Your task to perform on an android device: Open Google Chrome Image 0: 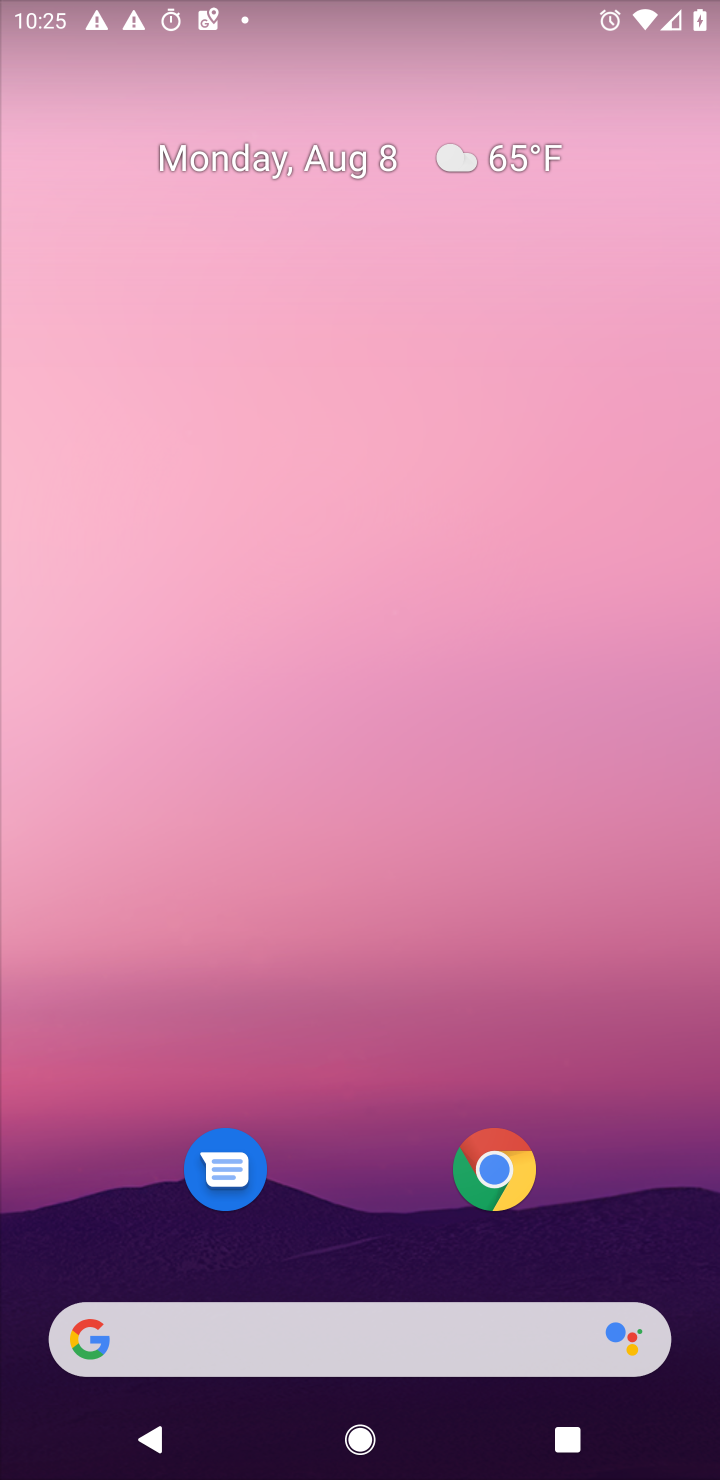
Step 0: click (517, 1150)
Your task to perform on an android device: Open Google Chrome Image 1: 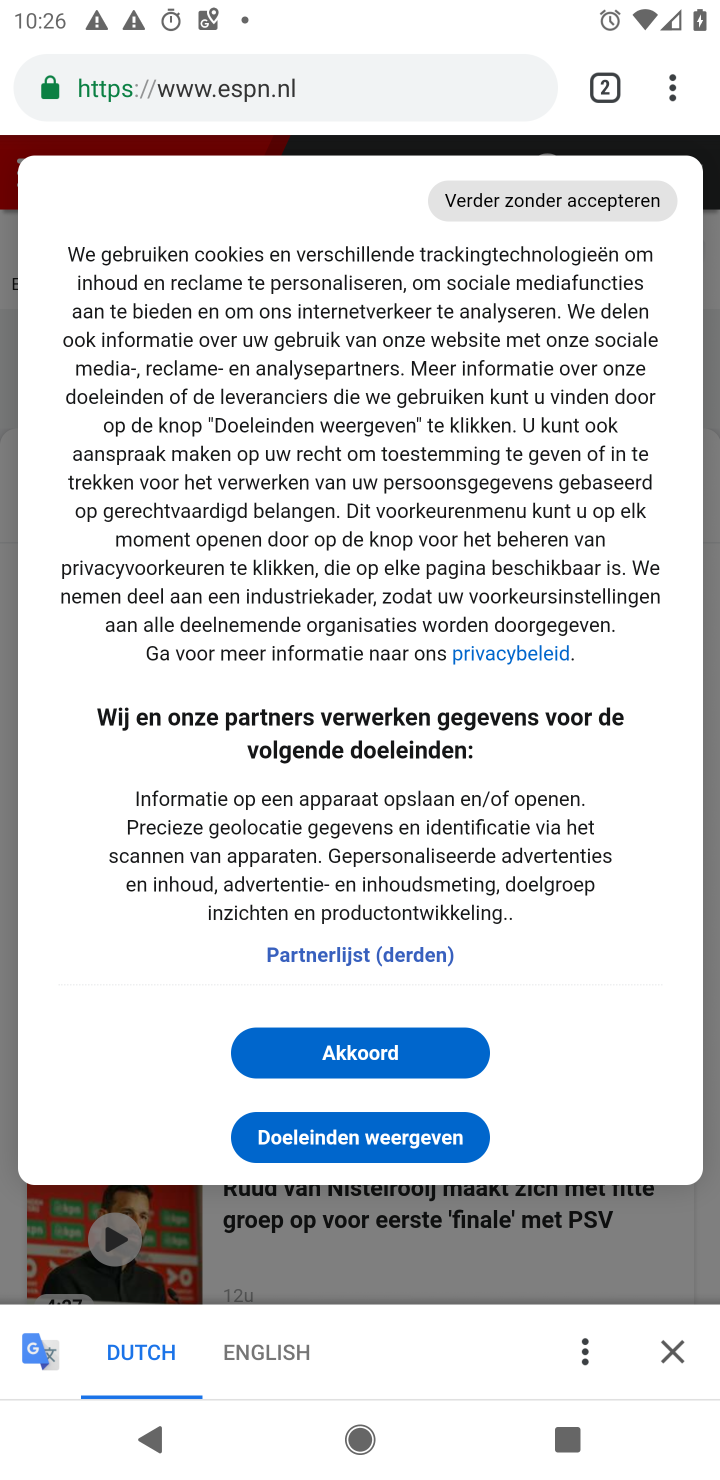
Step 1: task complete